Your task to perform on an android device: turn smart compose on in the gmail app Image 0: 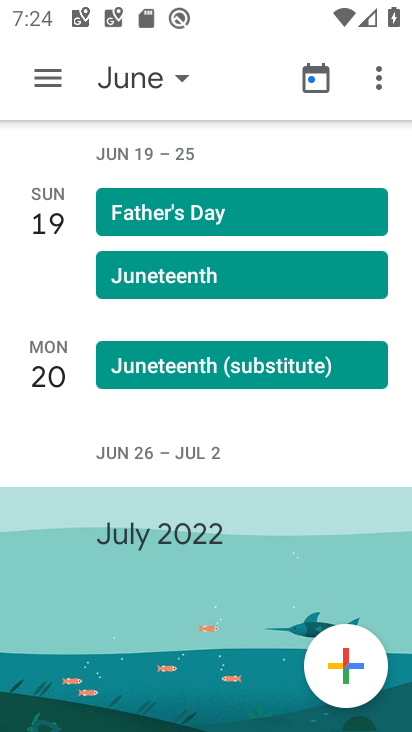
Step 0: press home button
Your task to perform on an android device: turn smart compose on in the gmail app Image 1: 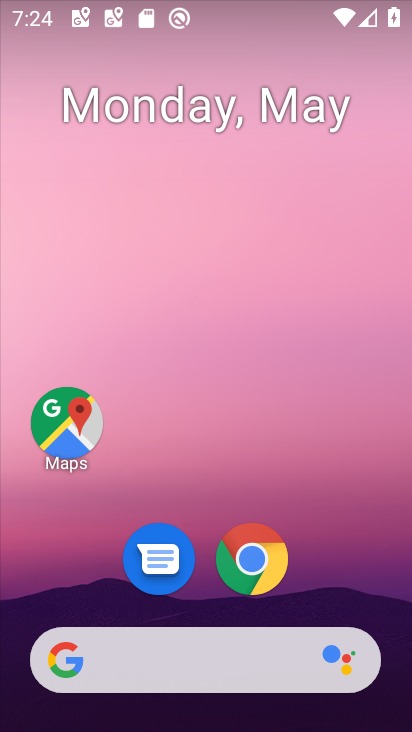
Step 1: drag from (377, 647) to (280, 33)
Your task to perform on an android device: turn smart compose on in the gmail app Image 2: 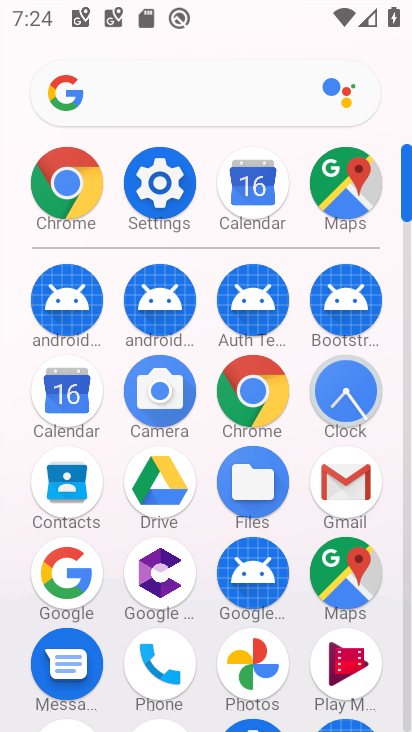
Step 2: click (344, 470)
Your task to perform on an android device: turn smart compose on in the gmail app Image 3: 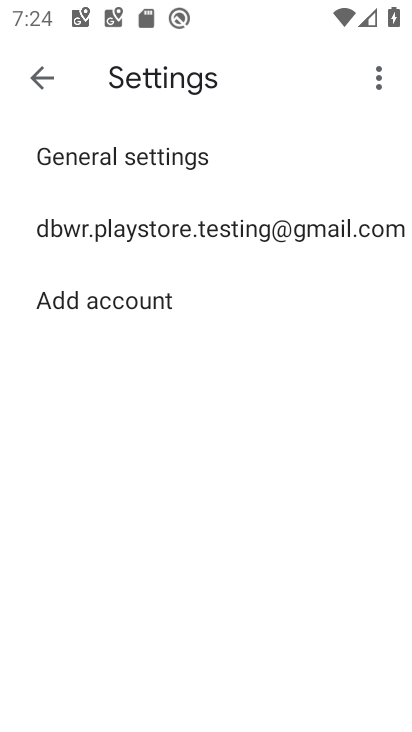
Step 3: click (148, 239)
Your task to perform on an android device: turn smart compose on in the gmail app Image 4: 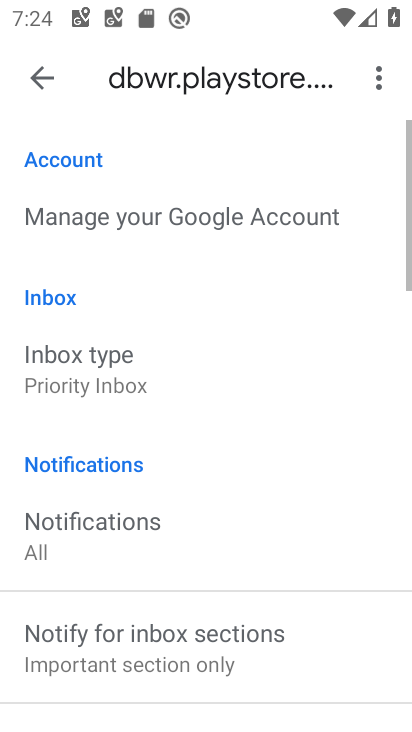
Step 4: task complete